Your task to perform on an android device: Show me recent news Image 0: 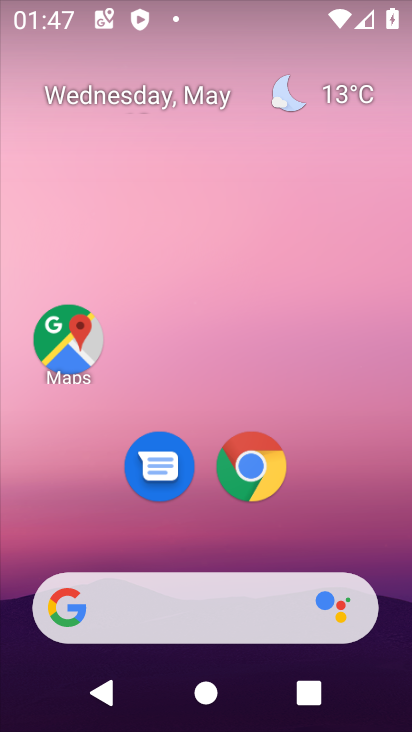
Step 0: click (254, 474)
Your task to perform on an android device: Show me recent news Image 1: 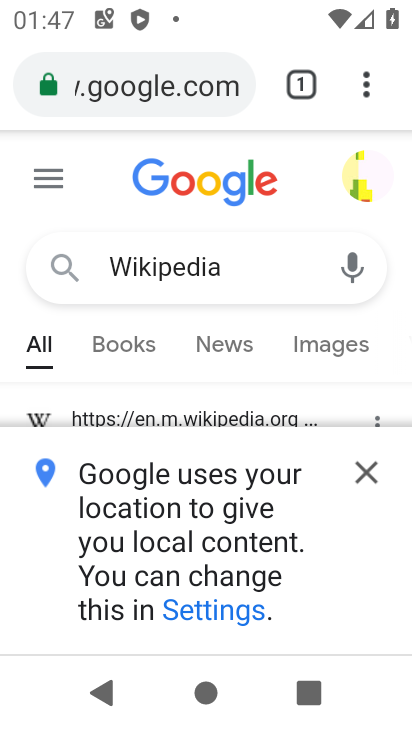
Step 1: click (180, 96)
Your task to perform on an android device: Show me recent news Image 2: 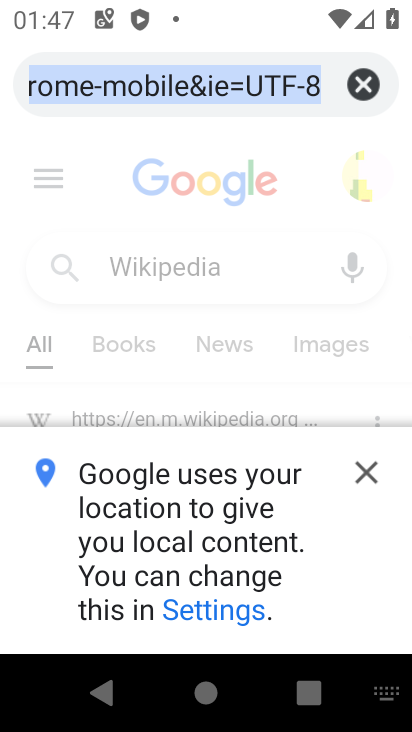
Step 2: click (364, 88)
Your task to perform on an android device: Show me recent news Image 3: 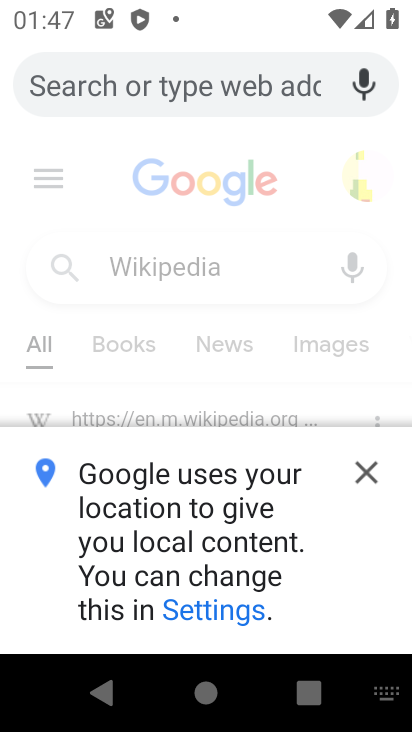
Step 3: type "Show me recent news"
Your task to perform on an android device: Show me recent news Image 4: 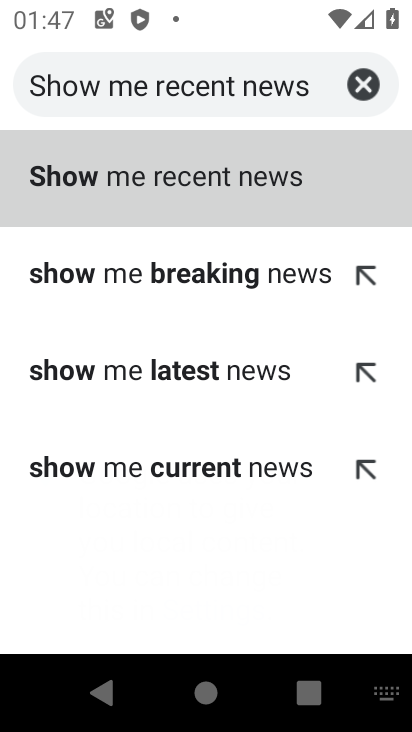
Step 4: click (161, 174)
Your task to perform on an android device: Show me recent news Image 5: 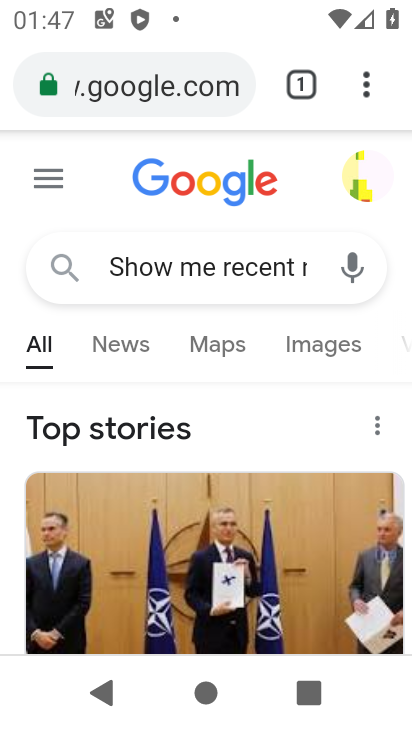
Step 5: task complete